Your task to perform on an android device: Show me the alarms in the clock app Image 0: 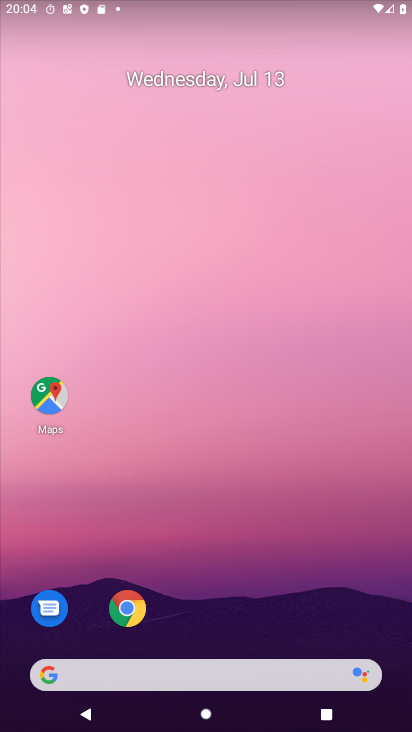
Step 0: drag from (201, 635) to (233, 220)
Your task to perform on an android device: Show me the alarms in the clock app Image 1: 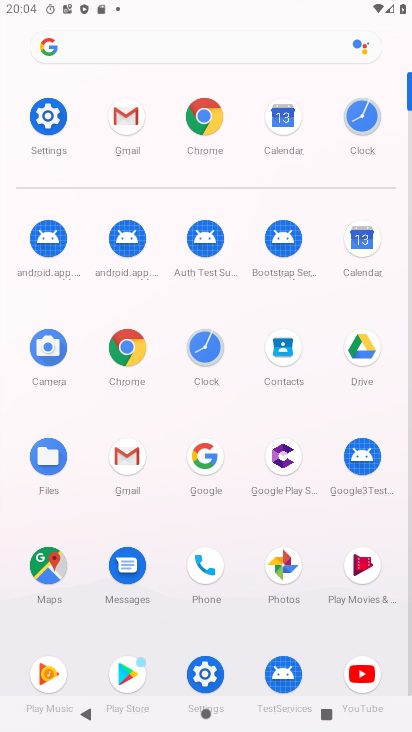
Step 1: click (209, 358)
Your task to perform on an android device: Show me the alarms in the clock app Image 2: 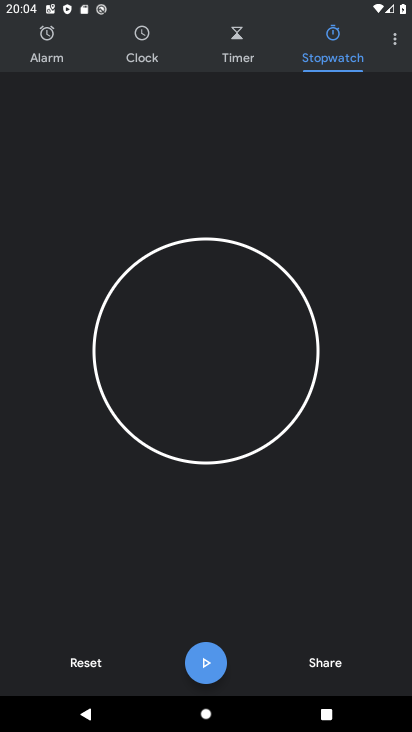
Step 2: click (51, 58)
Your task to perform on an android device: Show me the alarms in the clock app Image 3: 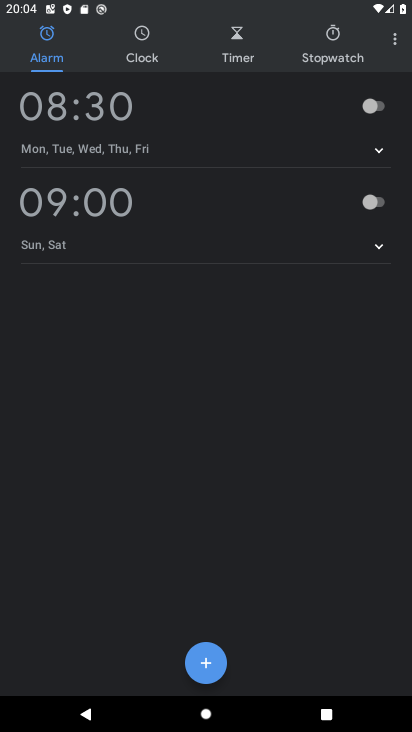
Step 3: task complete